Your task to perform on an android device: Open internet settings Image 0: 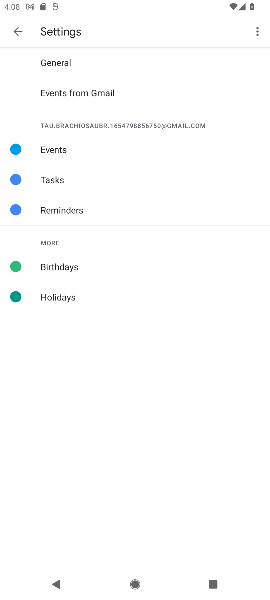
Step 0: press home button
Your task to perform on an android device: Open internet settings Image 1: 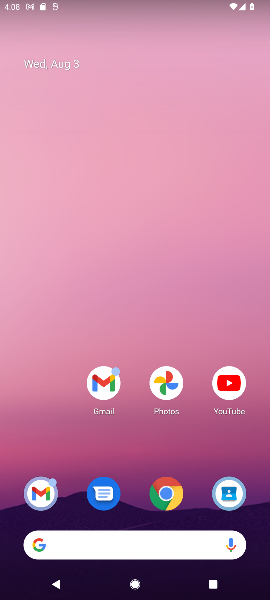
Step 1: drag from (33, 434) to (47, 181)
Your task to perform on an android device: Open internet settings Image 2: 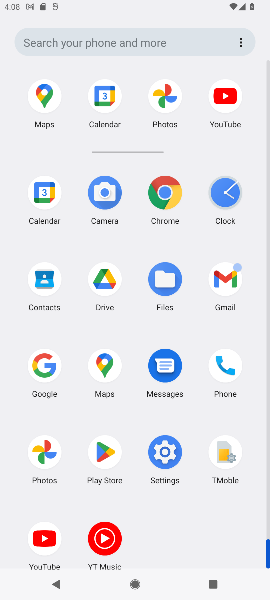
Step 2: click (172, 456)
Your task to perform on an android device: Open internet settings Image 3: 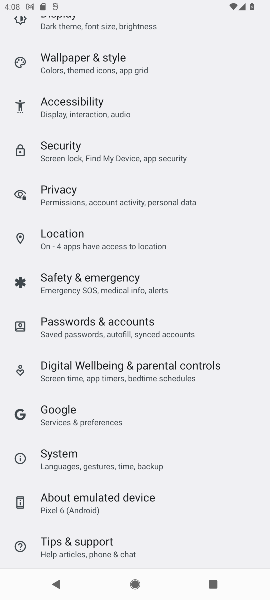
Step 3: drag from (215, 510) to (233, 420)
Your task to perform on an android device: Open internet settings Image 4: 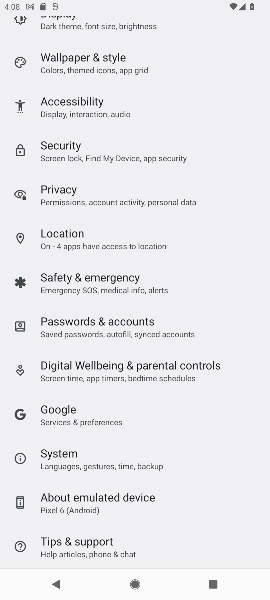
Step 4: drag from (233, 288) to (234, 394)
Your task to perform on an android device: Open internet settings Image 5: 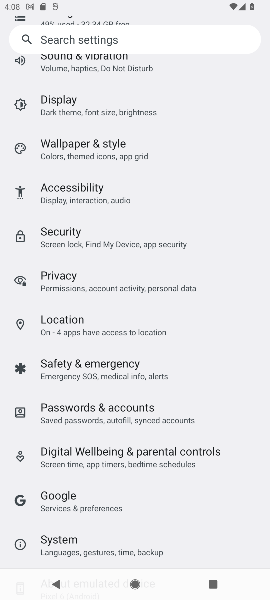
Step 5: drag from (228, 219) to (228, 335)
Your task to perform on an android device: Open internet settings Image 6: 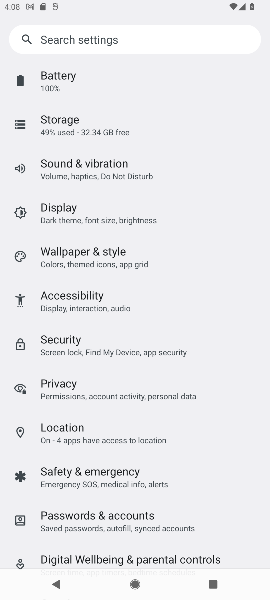
Step 6: drag from (228, 169) to (228, 299)
Your task to perform on an android device: Open internet settings Image 7: 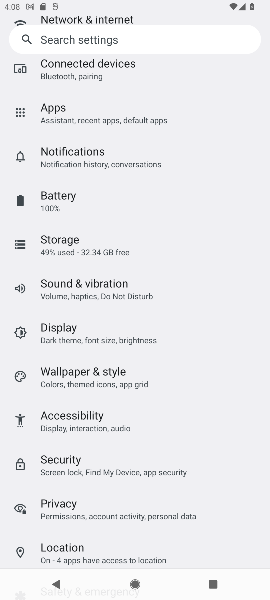
Step 7: drag from (228, 133) to (225, 368)
Your task to perform on an android device: Open internet settings Image 8: 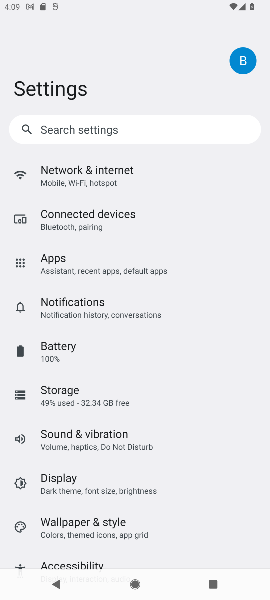
Step 8: click (158, 186)
Your task to perform on an android device: Open internet settings Image 9: 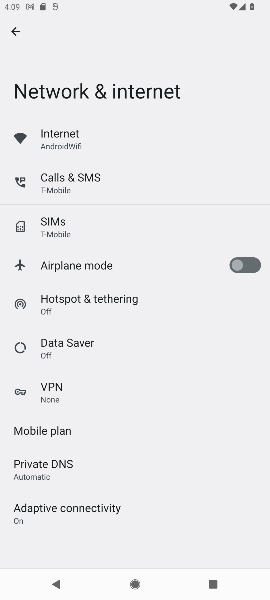
Step 9: click (83, 138)
Your task to perform on an android device: Open internet settings Image 10: 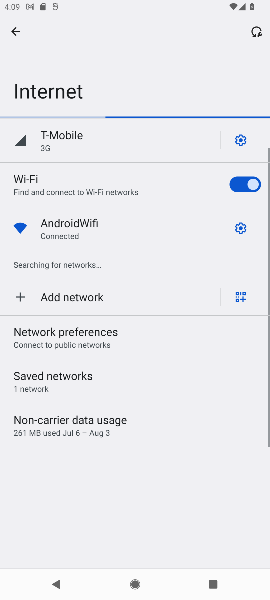
Step 10: task complete